Your task to perform on an android device: Go to location settings Image 0: 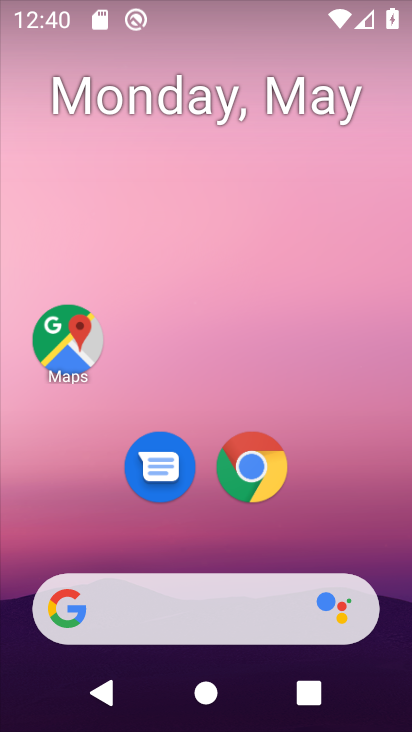
Step 0: drag from (202, 497) to (254, 54)
Your task to perform on an android device: Go to location settings Image 1: 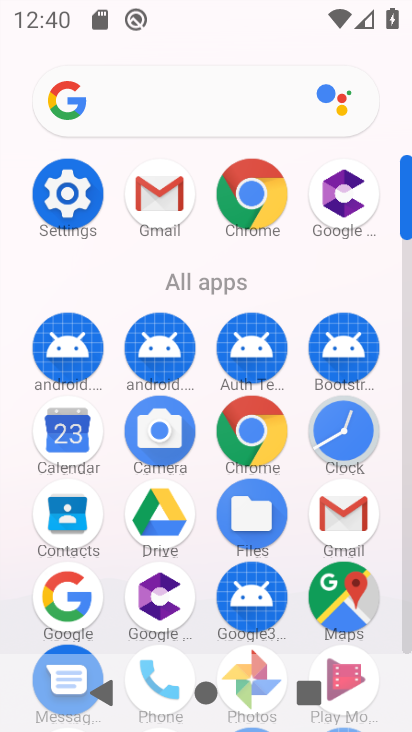
Step 1: click (80, 198)
Your task to perform on an android device: Go to location settings Image 2: 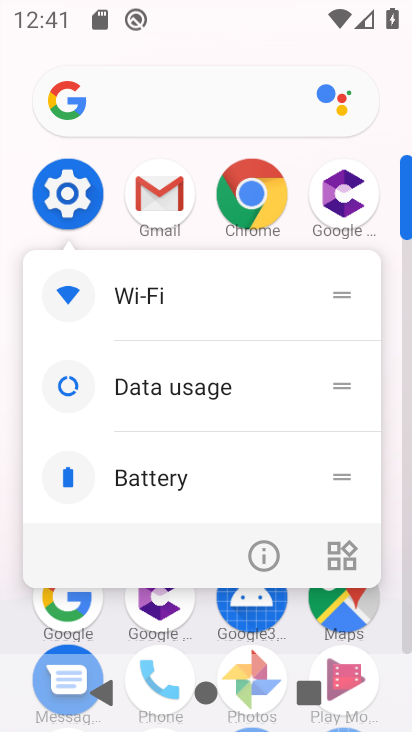
Step 2: click (260, 547)
Your task to perform on an android device: Go to location settings Image 3: 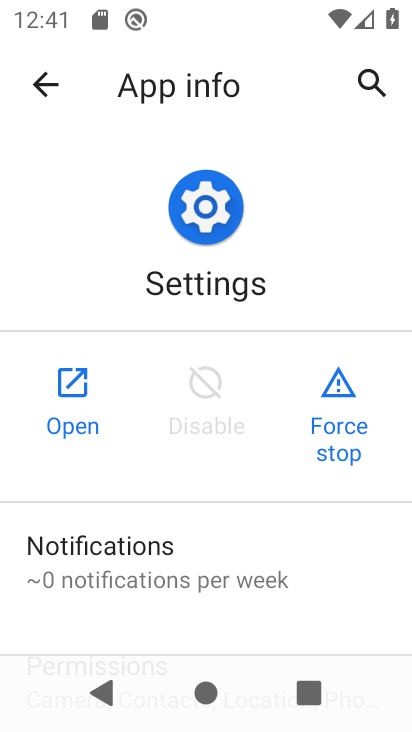
Step 3: click (90, 387)
Your task to perform on an android device: Go to location settings Image 4: 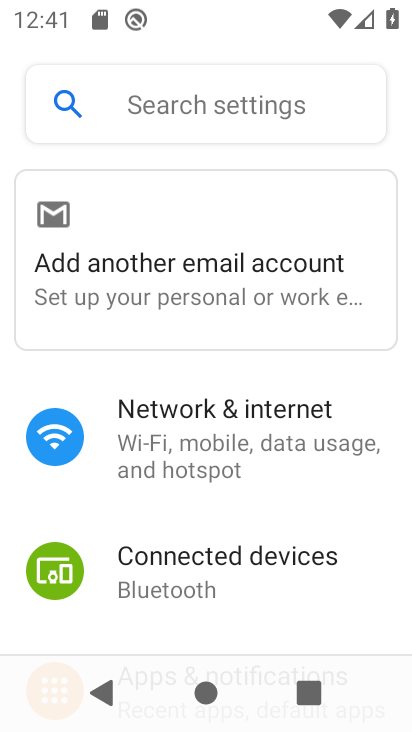
Step 4: drag from (188, 584) to (261, 36)
Your task to perform on an android device: Go to location settings Image 5: 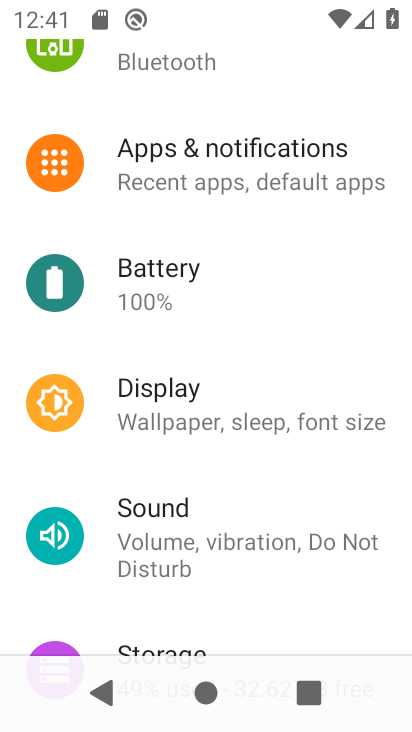
Step 5: drag from (214, 534) to (244, 121)
Your task to perform on an android device: Go to location settings Image 6: 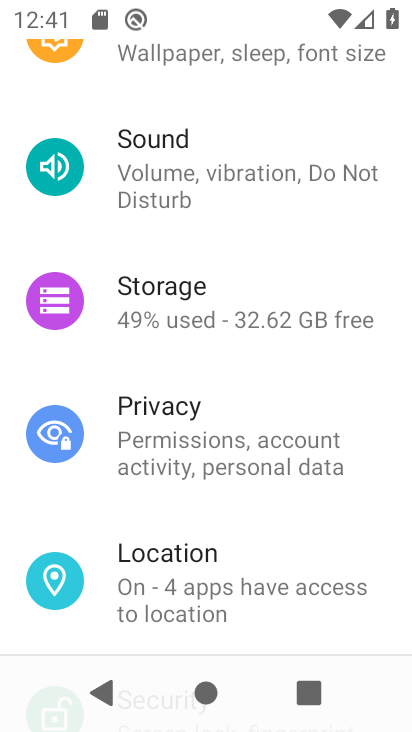
Step 6: click (157, 593)
Your task to perform on an android device: Go to location settings Image 7: 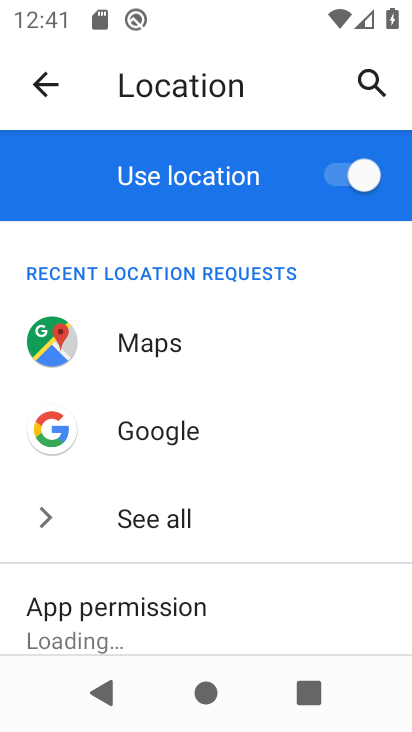
Step 7: task complete